Your task to perform on an android device: turn off improve location accuracy Image 0: 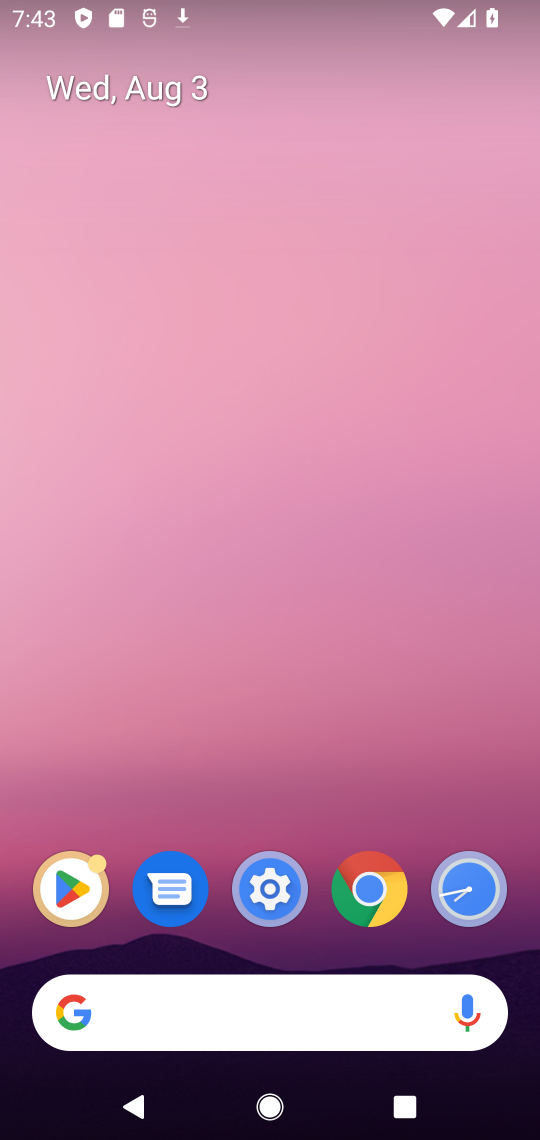
Step 0: click (270, 892)
Your task to perform on an android device: turn off improve location accuracy Image 1: 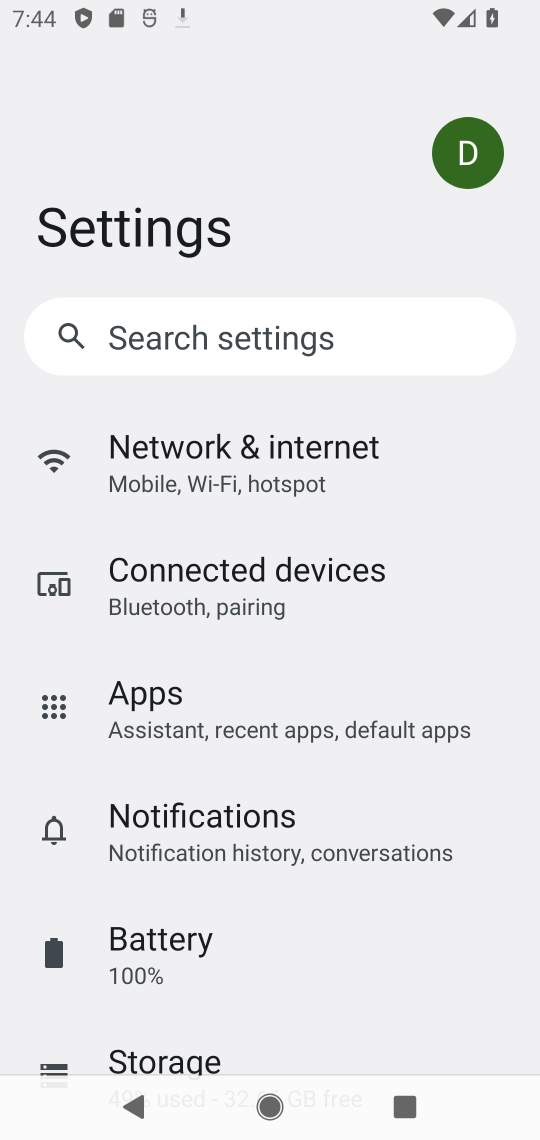
Step 1: drag from (216, 938) to (43, 576)
Your task to perform on an android device: turn off improve location accuracy Image 2: 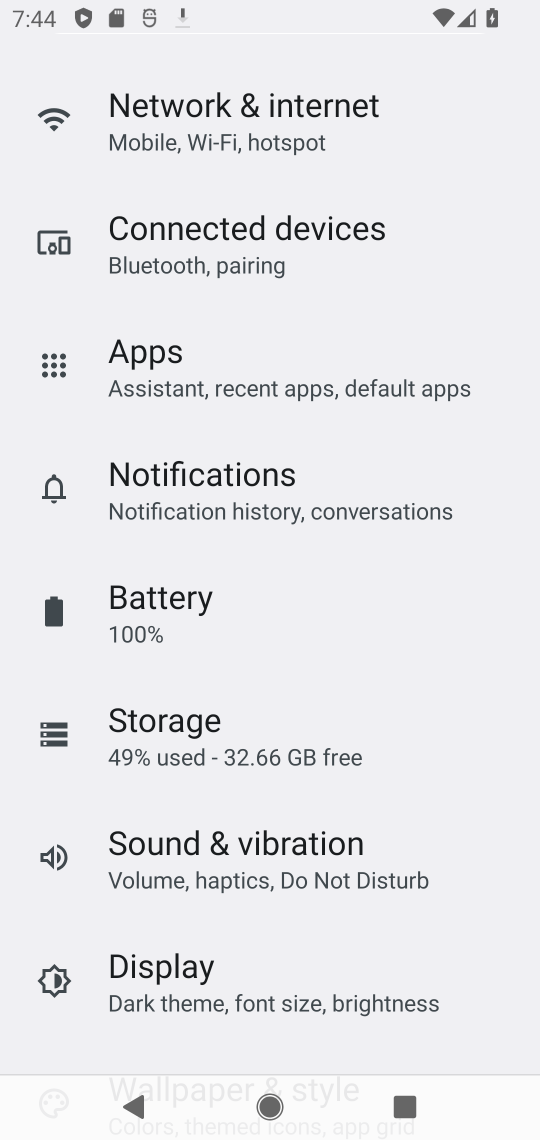
Step 2: drag from (175, 421) to (160, 294)
Your task to perform on an android device: turn off improve location accuracy Image 3: 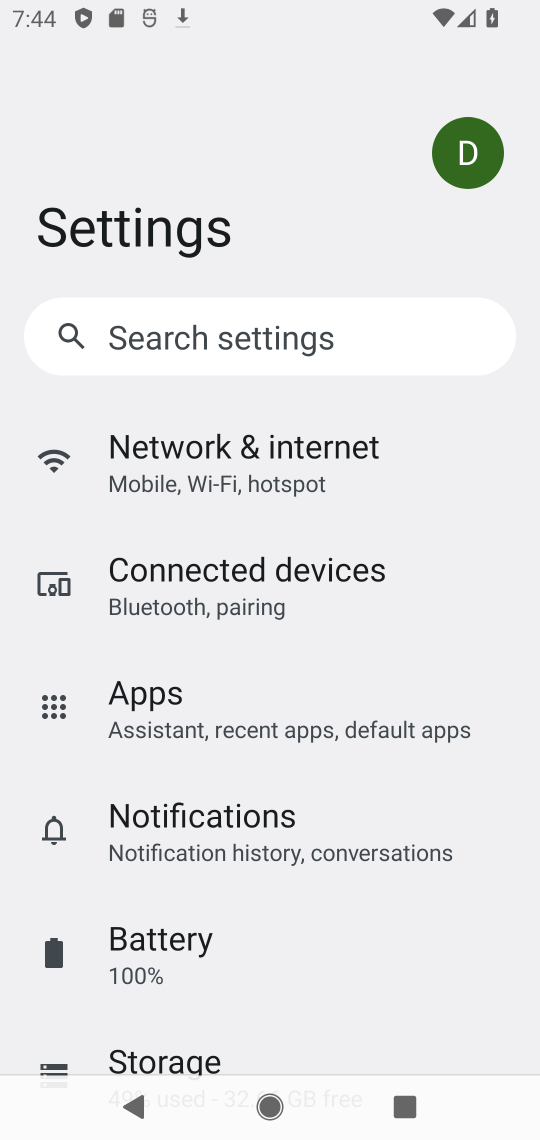
Step 3: drag from (252, 971) to (238, 216)
Your task to perform on an android device: turn off improve location accuracy Image 4: 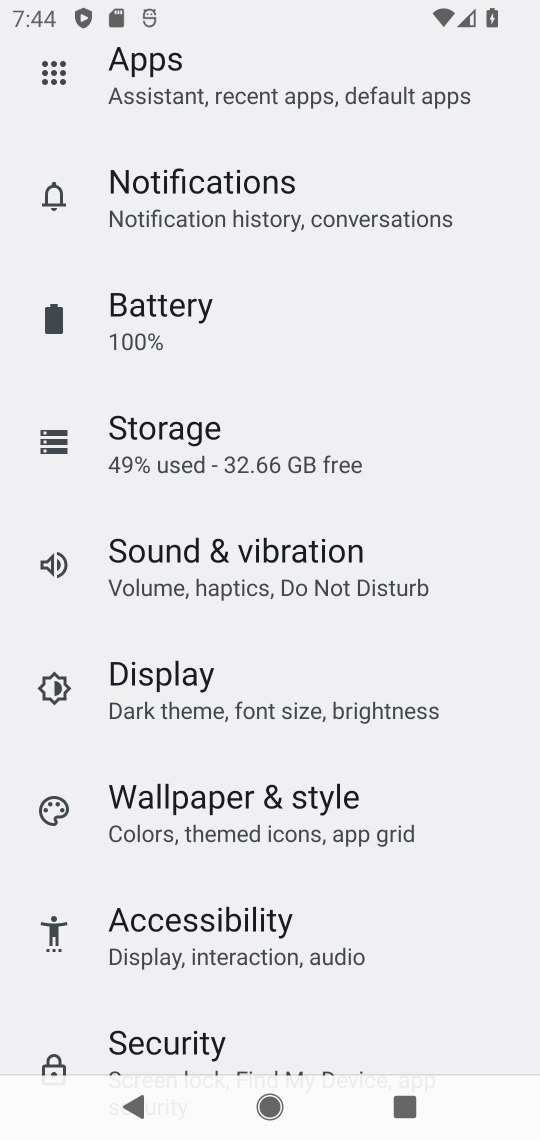
Step 4: drag from (327, 938) to (248, 259)
Your task to perform on an android device: turn off improve location accuracy Image 5: 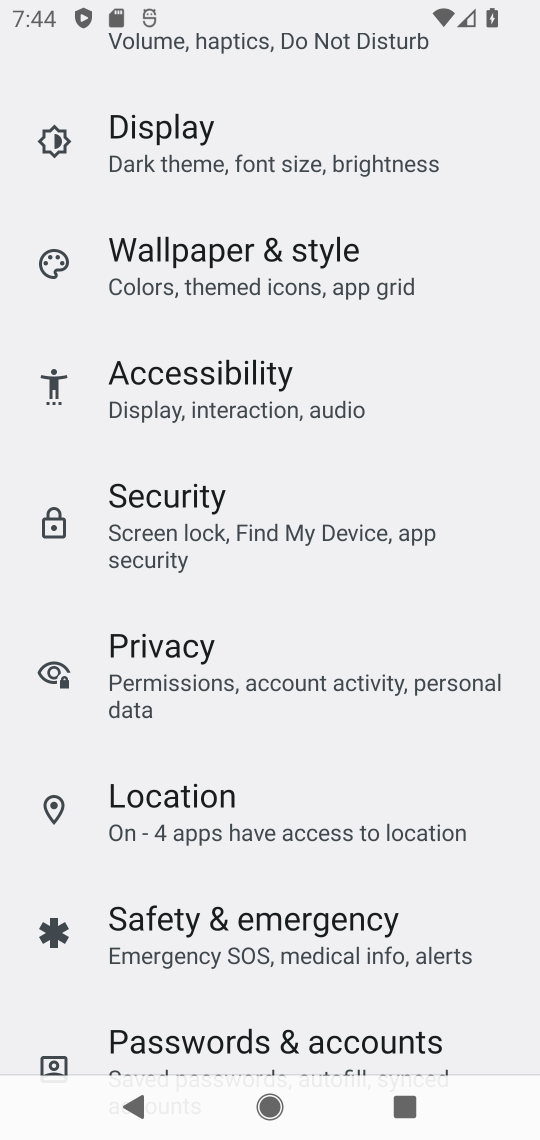
Step 5: click (212, 808)
Your task to perform on an android device: turn off improve location accuracy Image 6: 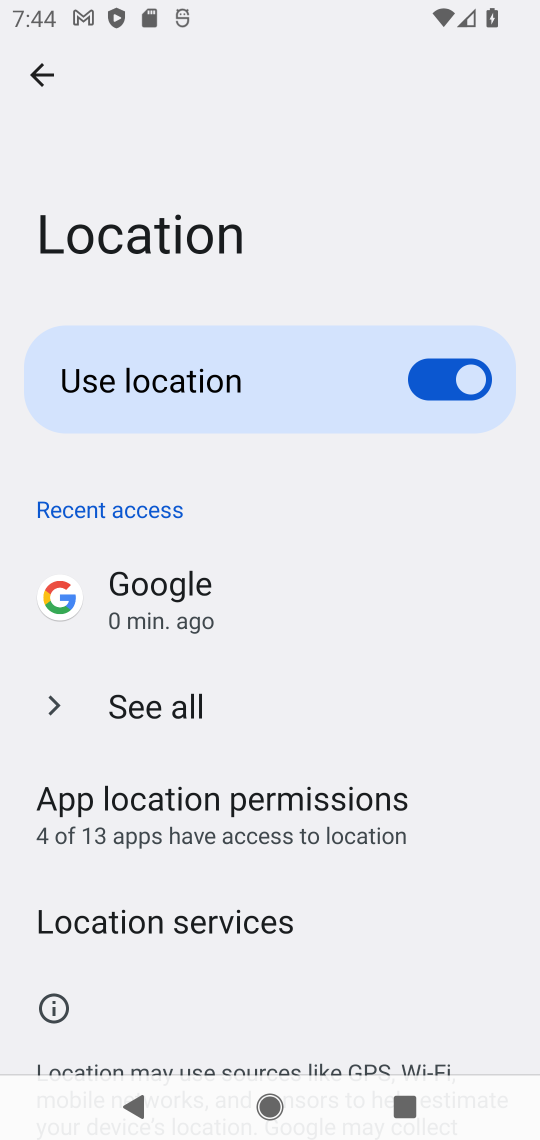
Step 6: drag from (223, 919) to (164, 291)
Your task to perform on an android device: turn off improve location accuracy Image 7: 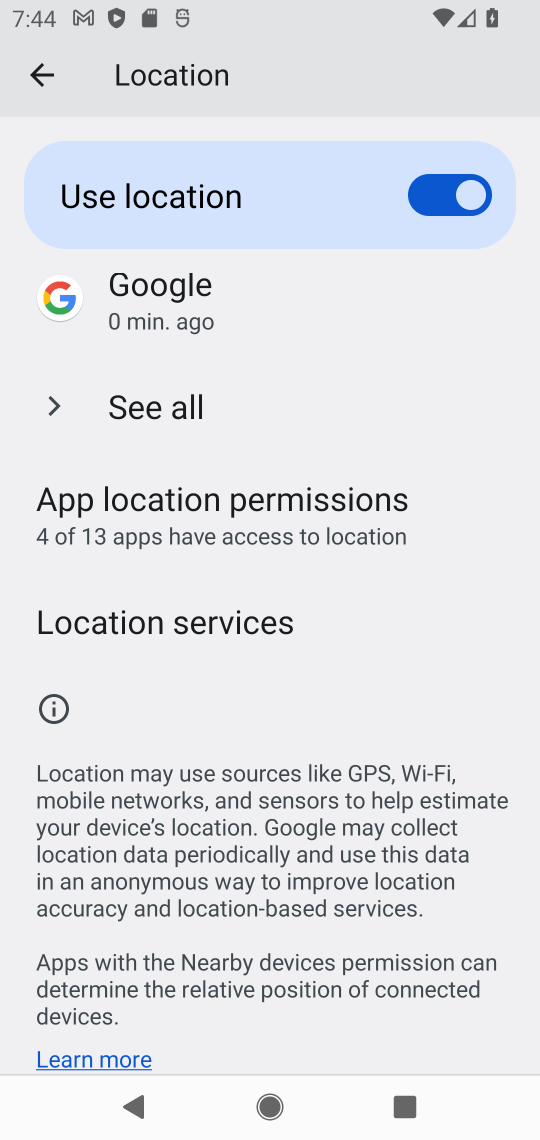
Step 7: drag from (194, 858) to (132, 182)
Your task to perform on an android device: turn off improve location accuracy Image 8: 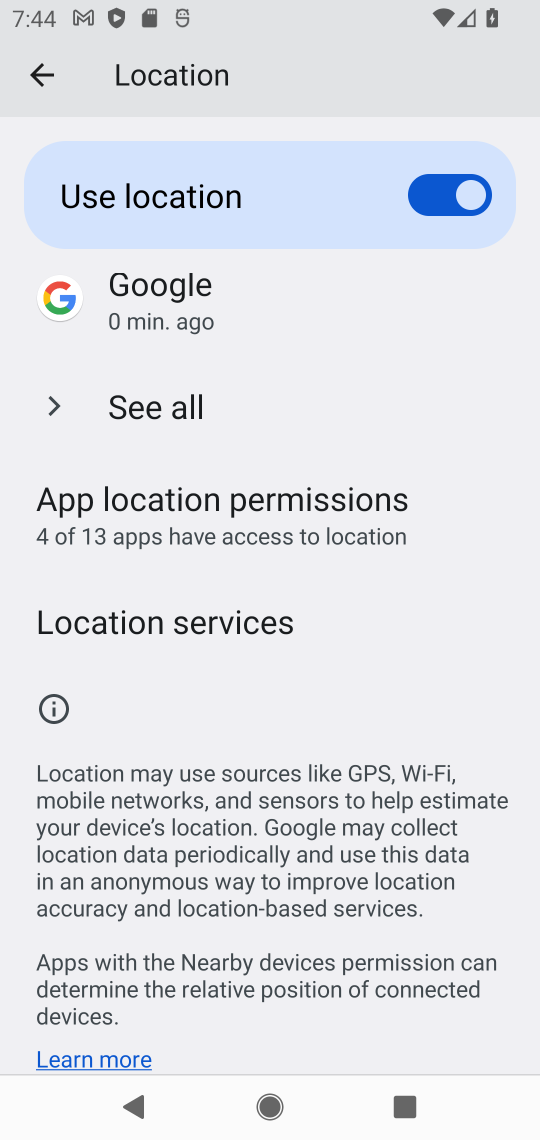
Step 8: click (211, 625)
Your task to perform on an android device: turn off improve location accuracy Image 9: 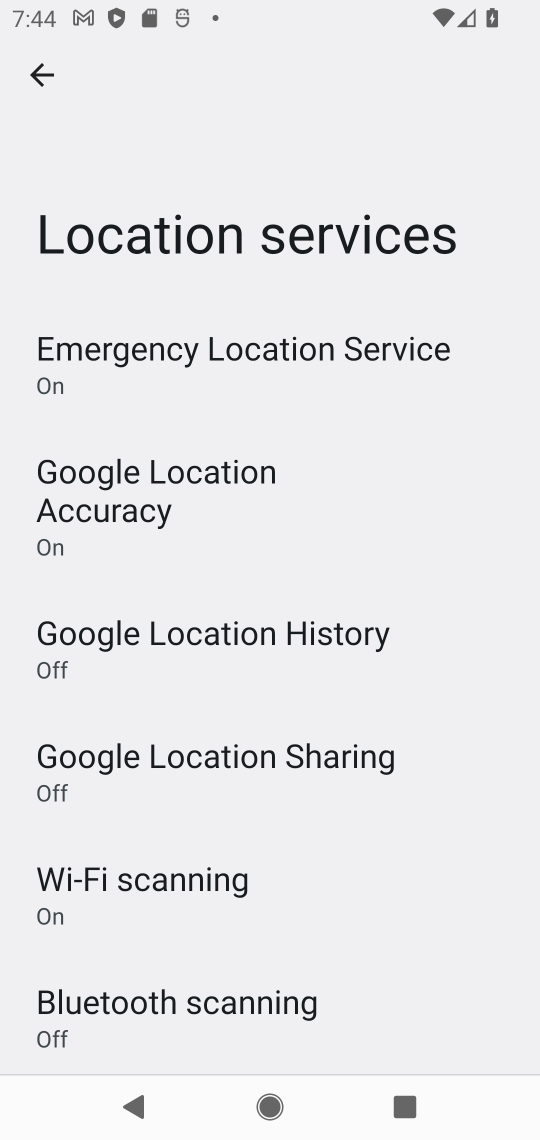
Step 9: click (194, 487)
Your task to perform on an android device: turn off improve location accuracy Image 10: 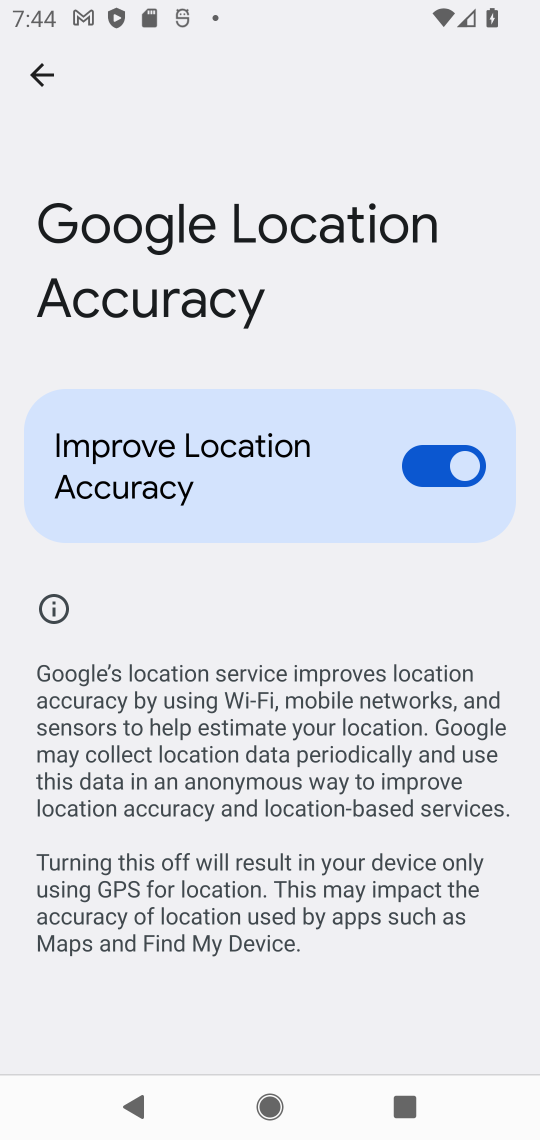
Step 10: click (422, 475)
Your task to perform on an android device: turn off improve location accuracy Image 11: 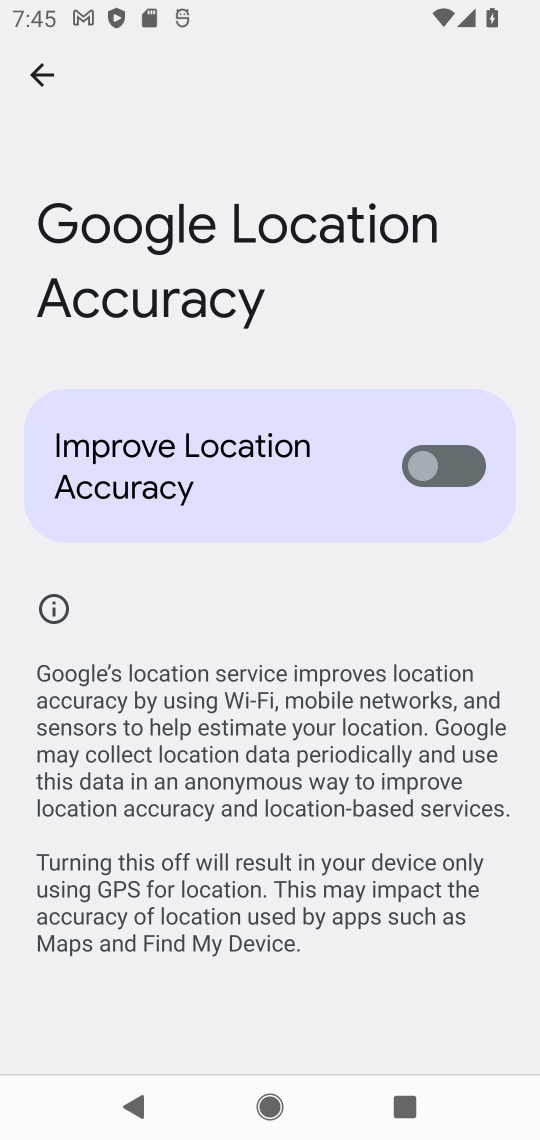
Step 11: task complete